Your task to perform on an android device: open app "ZOOM Cloud Meetings" (install if not already installed), go to login, and select forgot password Image 0: 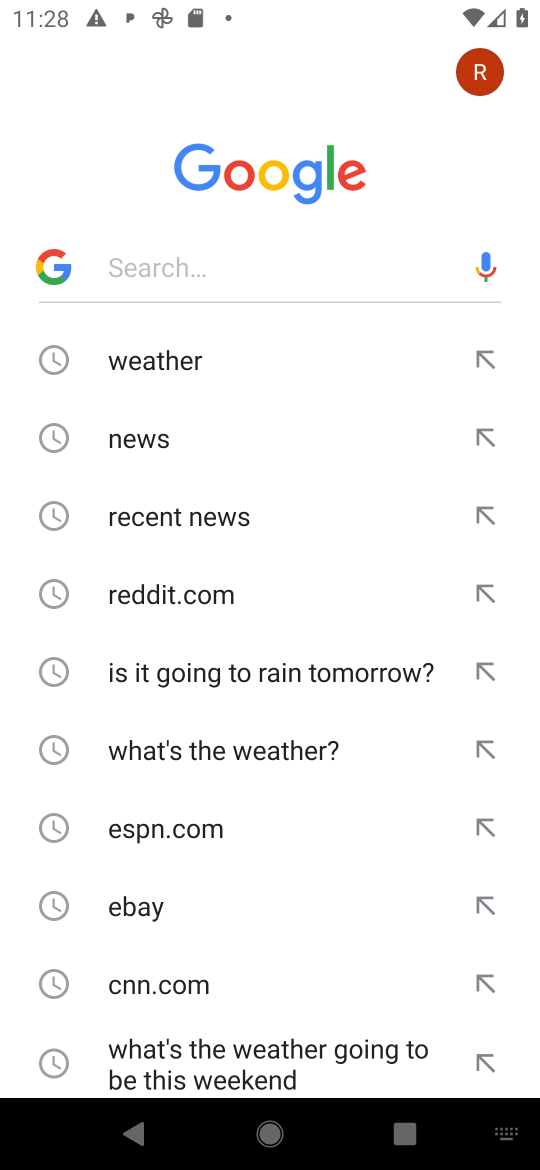
Step 0: press home button
Your task to perform on an android device: open app "ZOOM Cloud Meetings" (install if not already installed), go to login, and select forgot password Image 1: 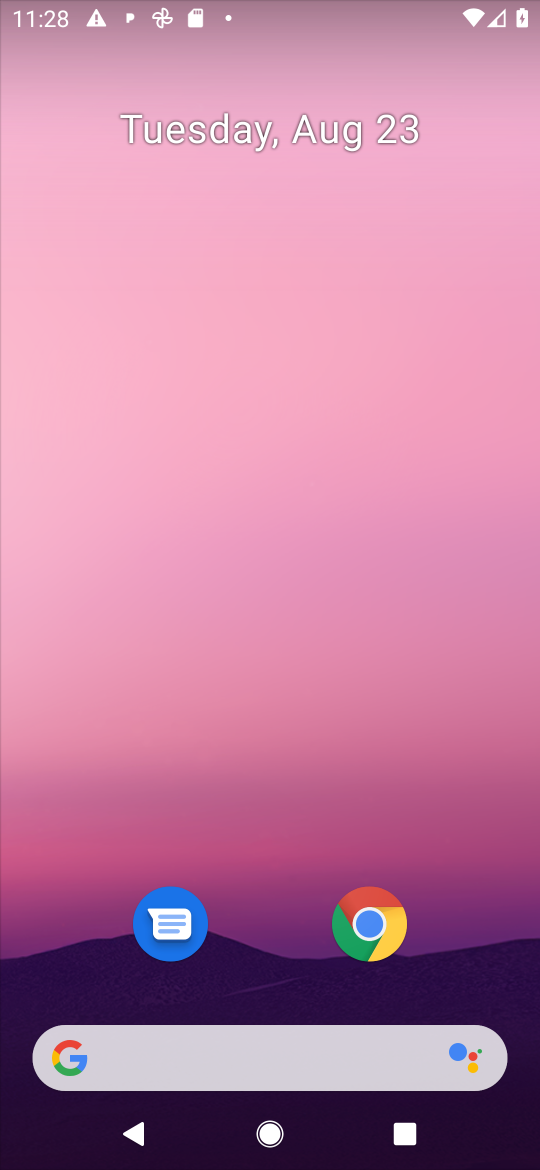
Step 1: drag from (465, 993) to (502, 181)
Your task to perform on an android device: open app "ZOOM Cloud Meetings" (install if not already installed), go to login, and select forgot password Image 2: 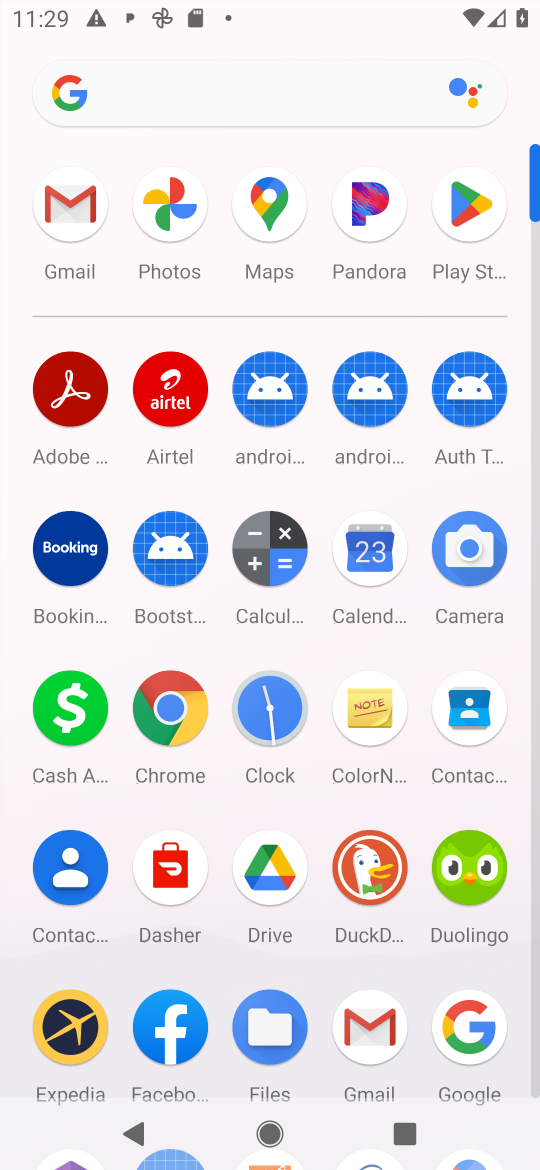
Step 2: click (469, 210)
Your task to perform on an android device: open app "ZOOM Cloud Meetings" (install if not already installed), go to login, and select forgot password Image 3: 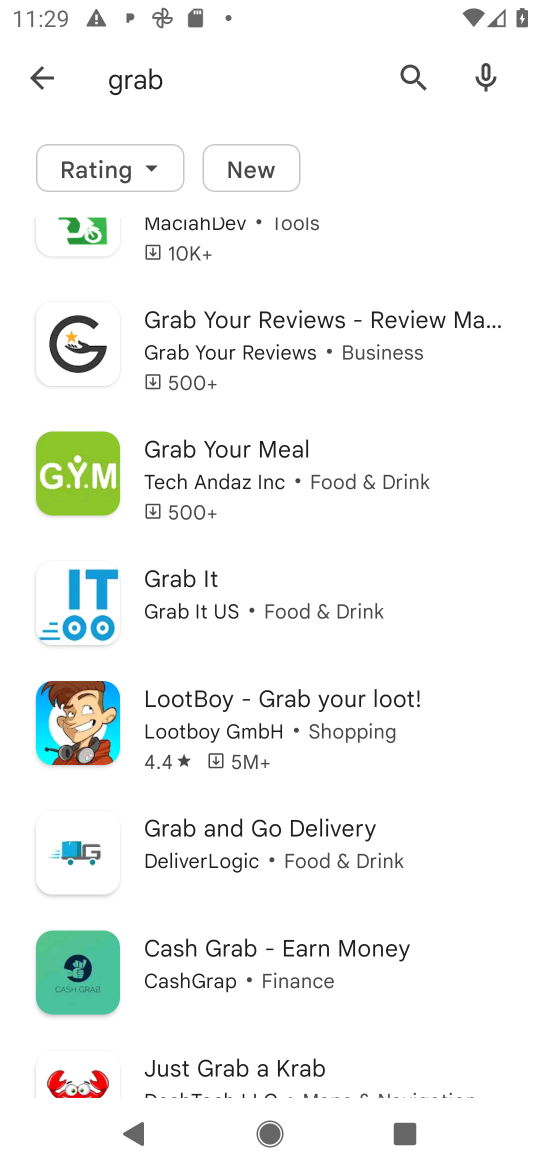
Step 3: press back button
Your task to perform on an android device: open app "ZOOM Cloud Meetings" (install if not already installed), go to login, and select forgot password Image 4: 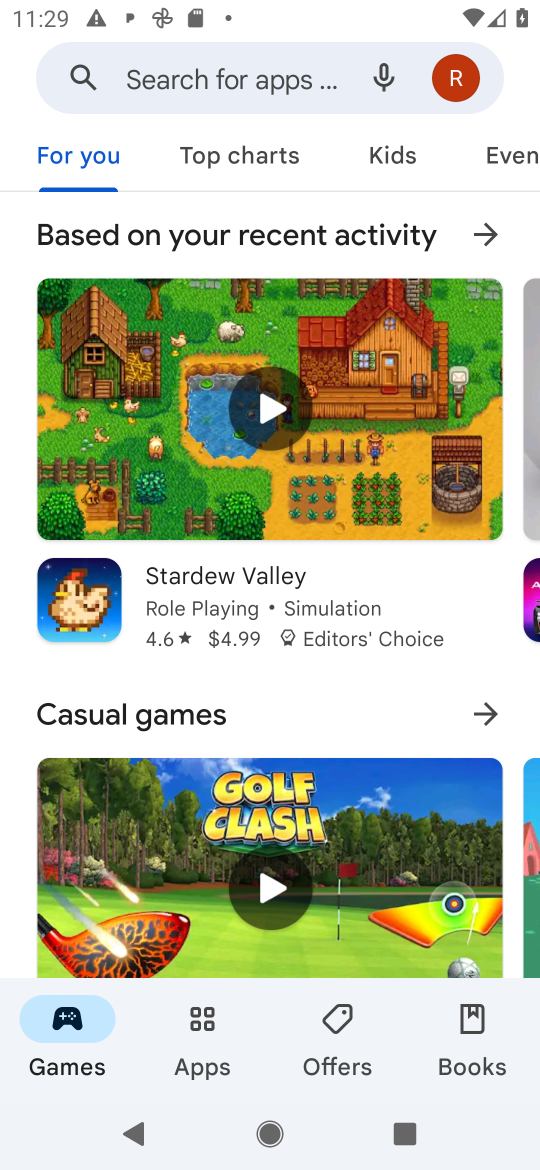
Step 4: click (185, 79)
Your task to perform on an android device: open app "ZOOM Cloud Meetings" (install if not already installed), go to login, and select forgot password Image 5: 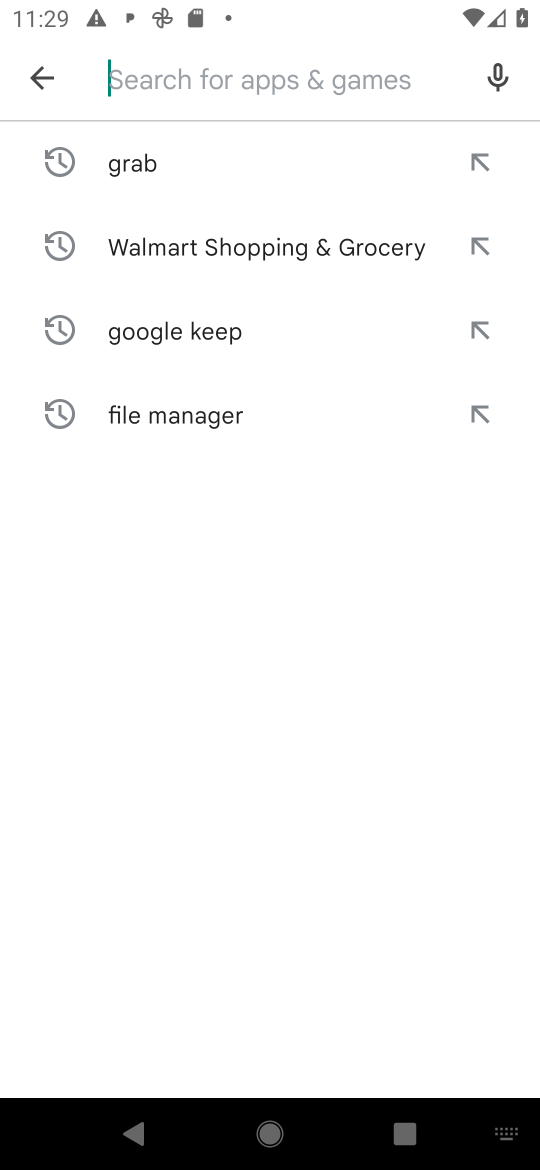
Step 5: type "ZOOM Cloud Meetings"
Your task to perform on an android device: open app "ZOOM Cloud Meetings" (install if not already installed), go to login, and select forgot password Image 6: 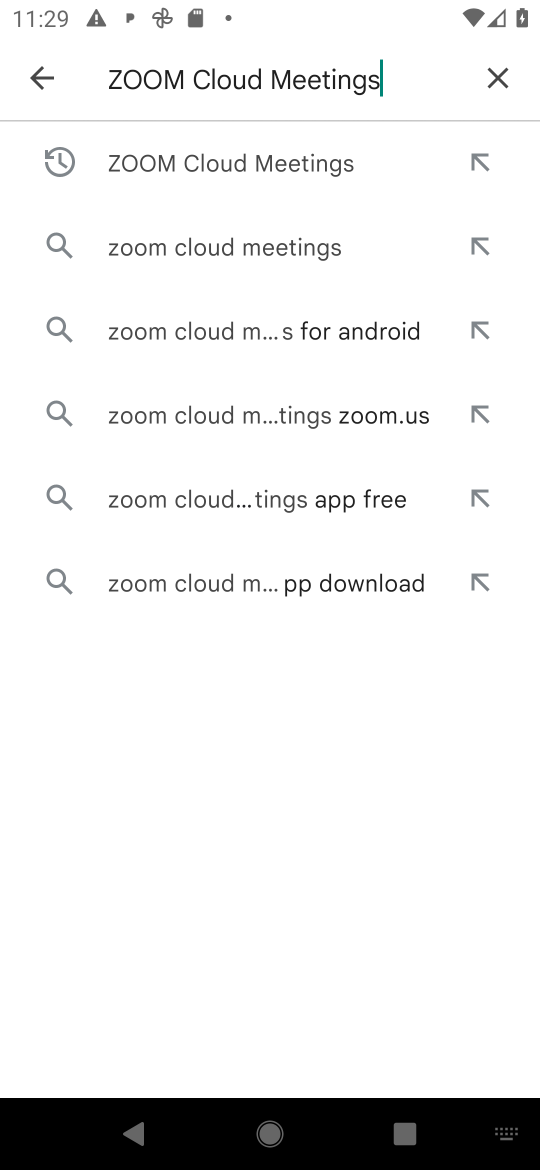
Step 6: press enter
Your task to perform on an android device: open app "ZOOM Cloud Meetings" (install if not already installed), go to login, and select forgot password Image 7: 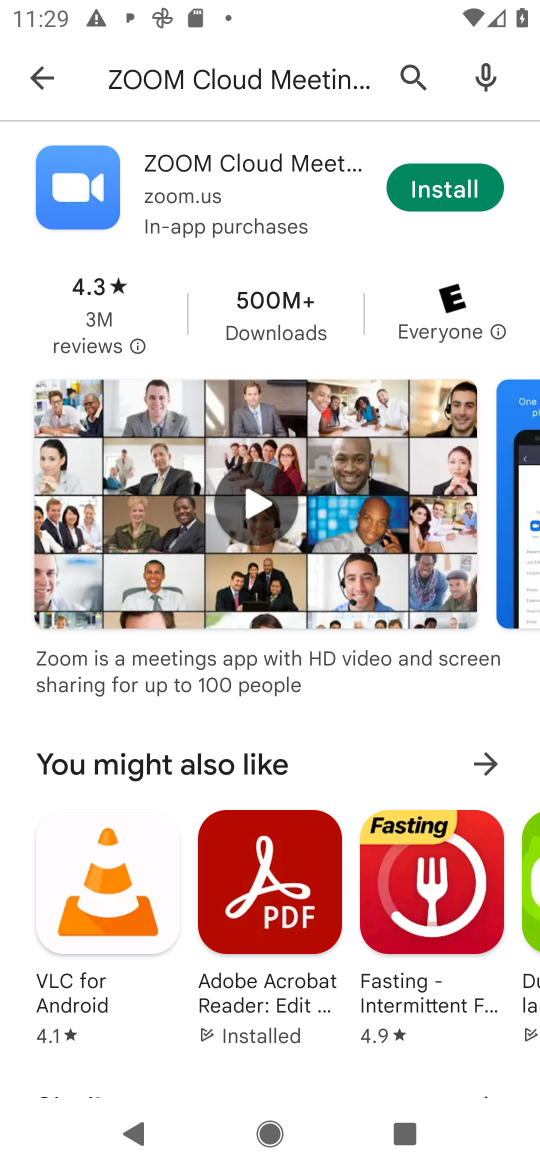
Step 7: click (448, 180)
Your task to perform on an android device: open app "ZOOM Cloud Meetings" (install if not already installed), go to login, and select forgot password Image 8: 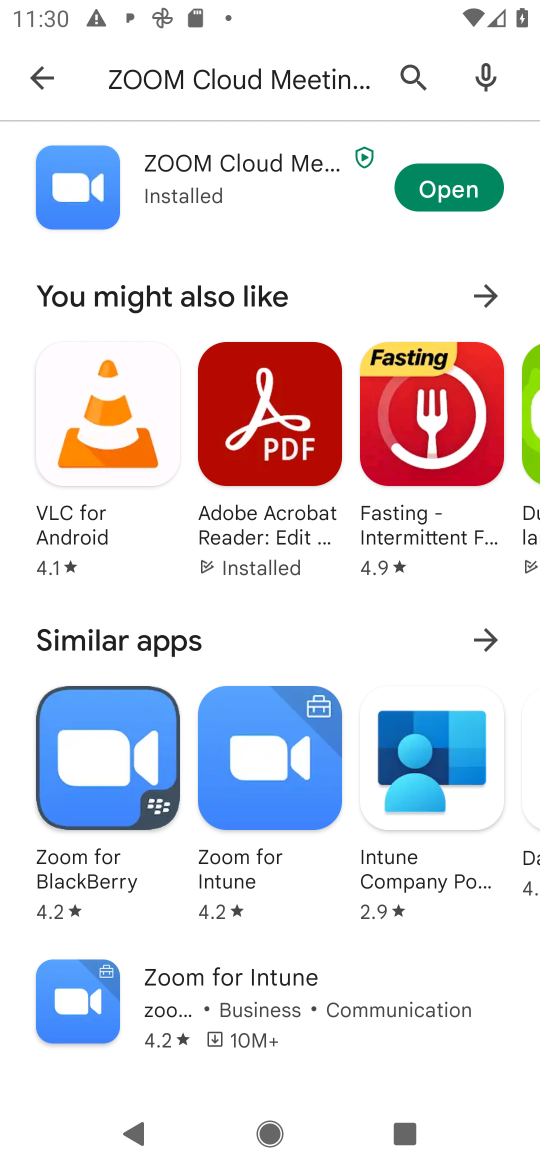
Step 8: click (462, 193)
Your task to perform on an android device: open app "ZOOM Cloud Meetings" (install if not already installed), go to login, and select forgot password Image 9: 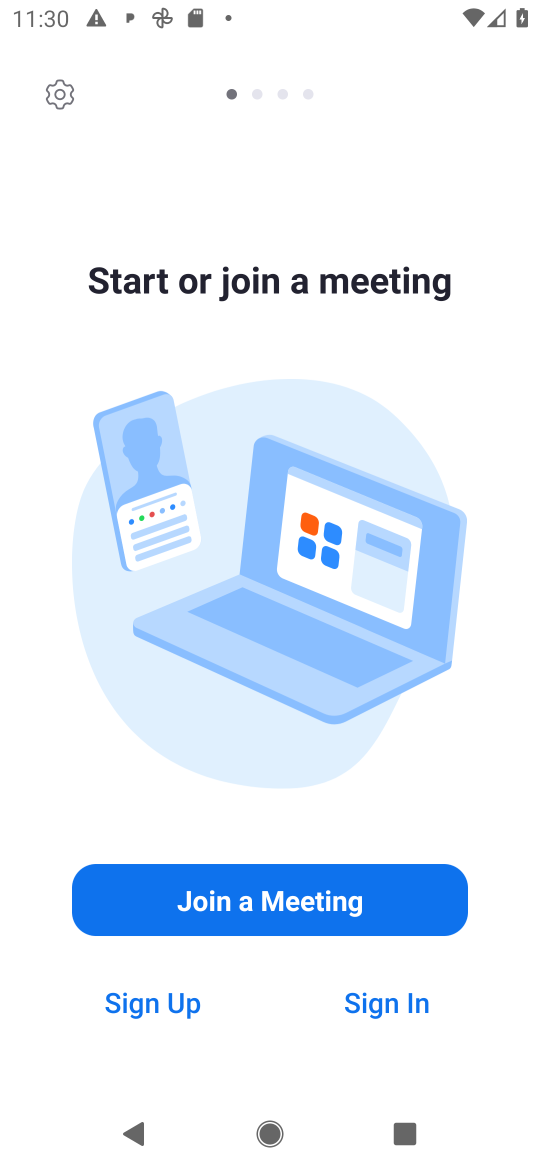
Step 9: click (381, 1001)
Your task to perform on an android device: open app "ZOOM Cloud Meetings" (install if not already installed), go to login, and select forgot password Image 10: 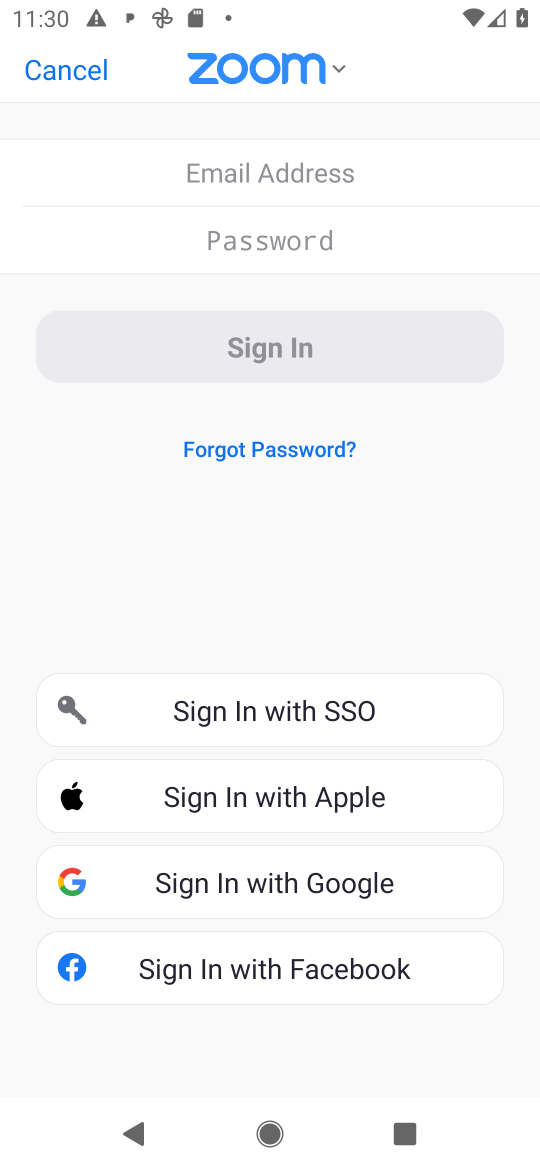
Step 10: click (344, 447)
Your task to perform on an android device: open app "ZOOM Cloud Meetings" (install if not already installed), go to login, and select forgot password Image 11: 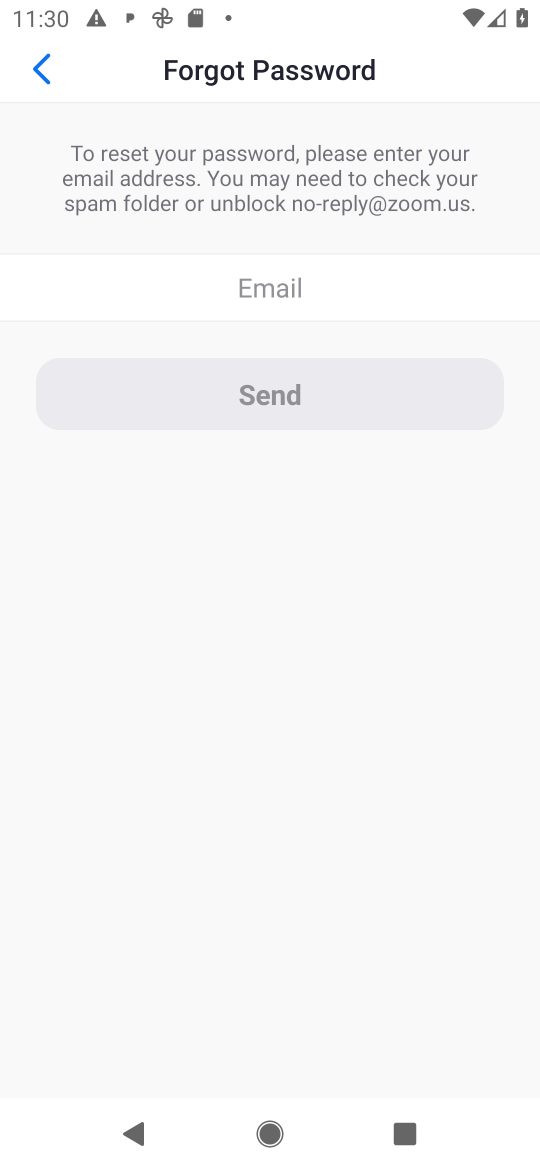
Step 11: task complete